Your task to perform on an android device: Go to Google maps Image 0: 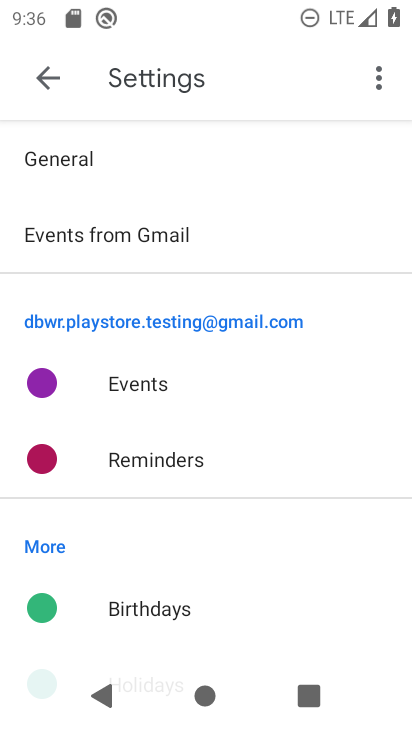
Step 0: press home button
Your task to perform on an android device: Go to Google maps Image 1: 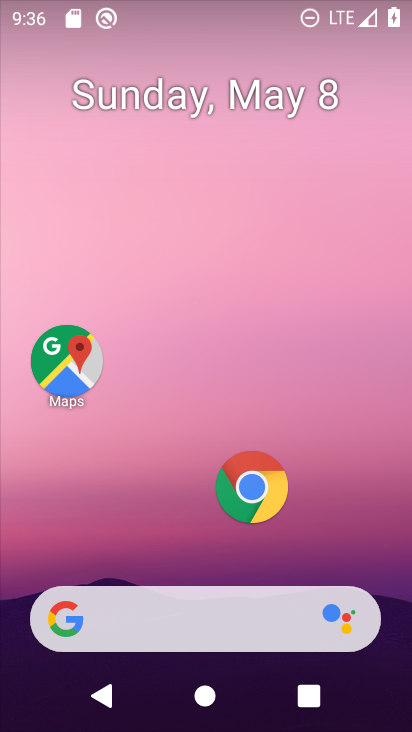
Step 1: click (64, 367)
Your task to perform on an android device: Go to Google maps Image 2: 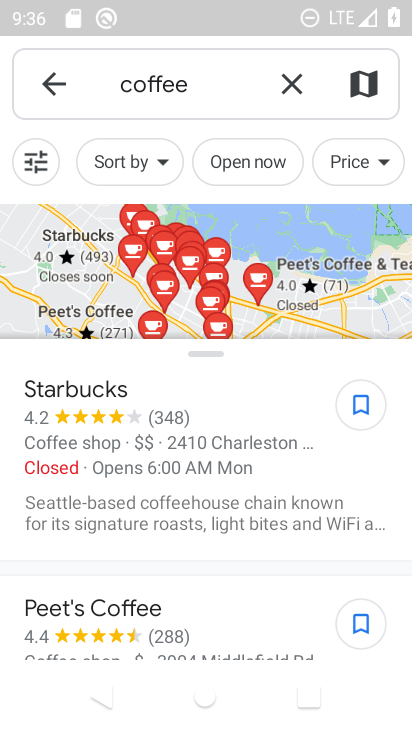
Step 2: click (290, 82)
Your task to perform on an android device: Go to Google maps Image 3: 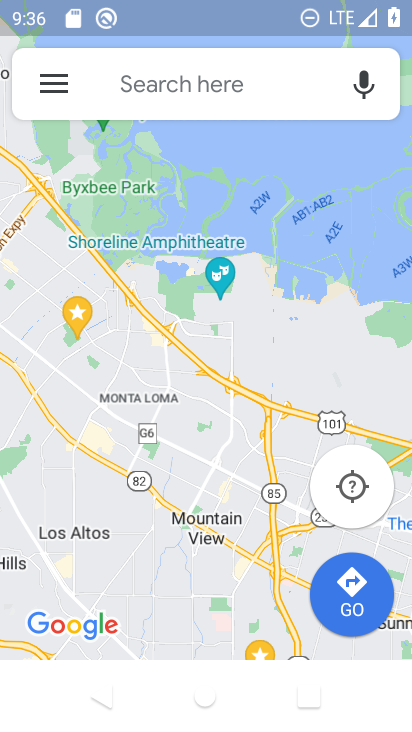
Step 3: task complete